Your task to perform on an android device: open app "Skype" (install if not already installed) Image 0: 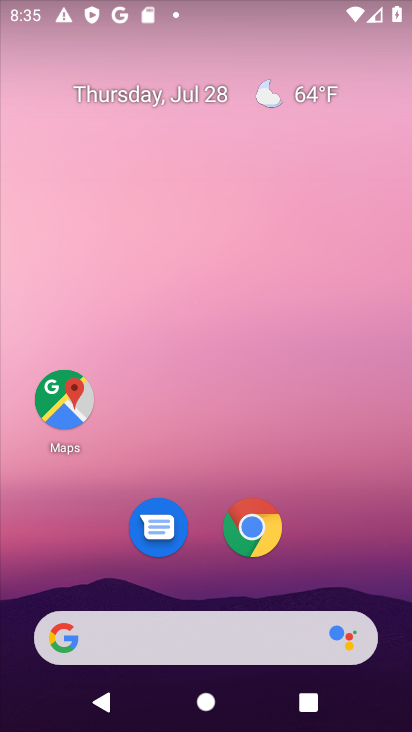
Step 0: click (218, 644)
Your task to perform on an android device: open app "Skype" (install if not already installed) Image 1: 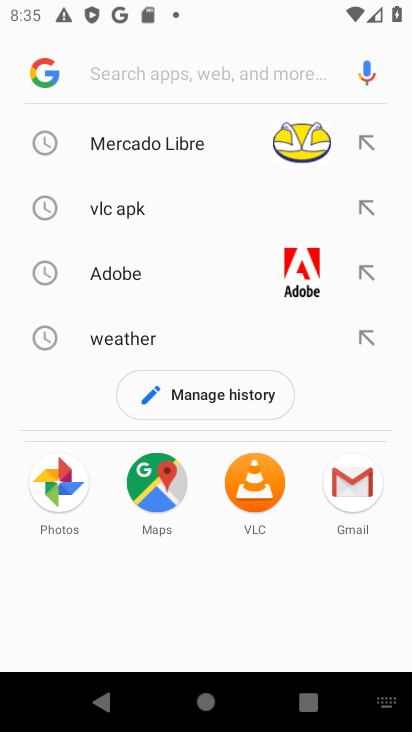
Step 1: type "skype"
Your task to perform on an android device: open app "Skype" (install if not already installed) Image 2: 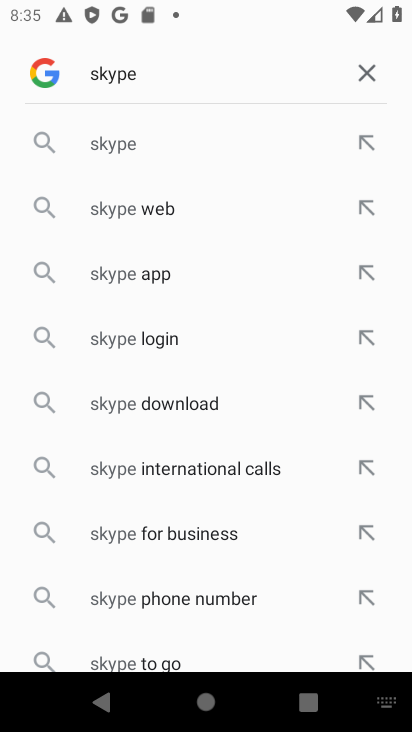
Step 2: click (360, 260)
Your task to perform on an android device: open app "Skype" (install if not already installed) Image 3: 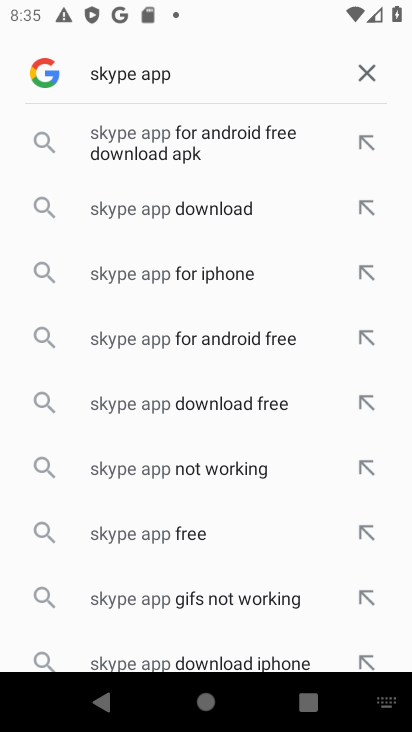
Step 3: click (366, 338)
Your task to perform on an android device: open app "Skype" (install if not already installed) Image 4: 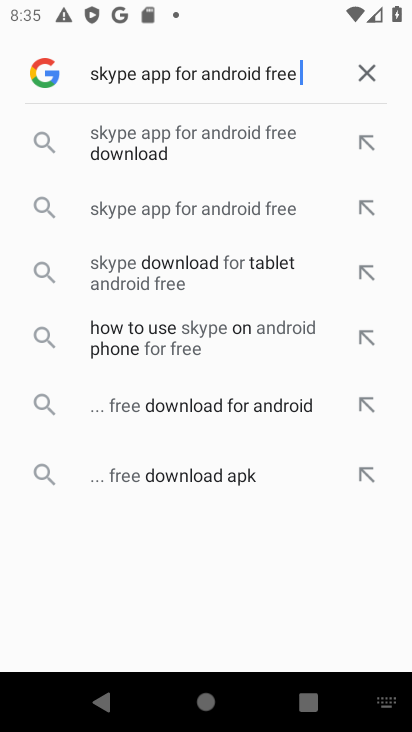
Step 4: click (256, 143)
Your task to perform on an android device: open app "Skype" (install if not already installed) Image 5: 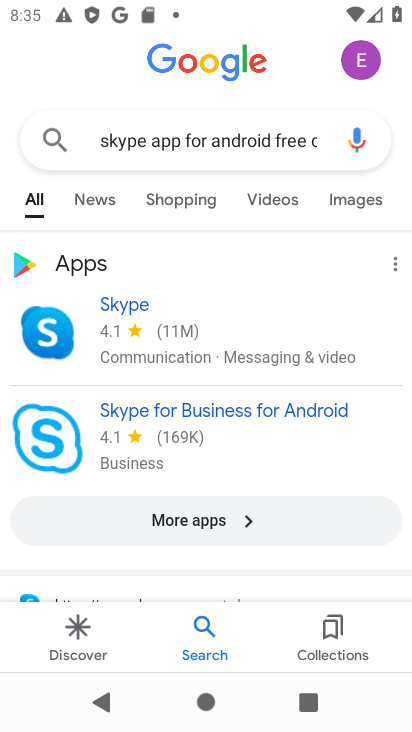
Step 5: click (157, 348)
Your task to perform on an android device: open app "Skype" (install if not already installed) Image 6: 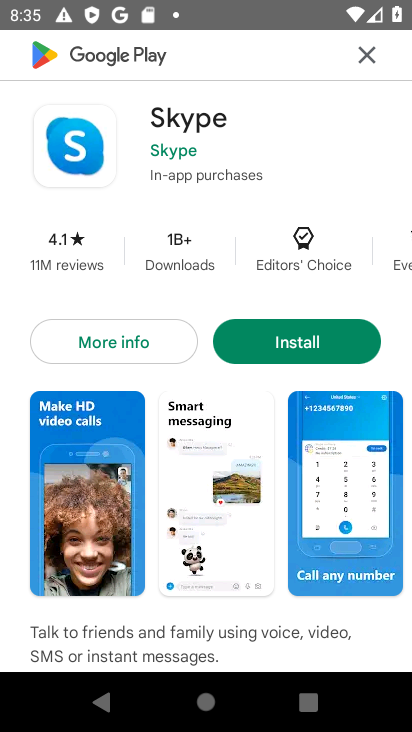
Step 6: click (319, 341)
Your task to perform on an android device: open app "Skype" (install if not already installed) Image 7: 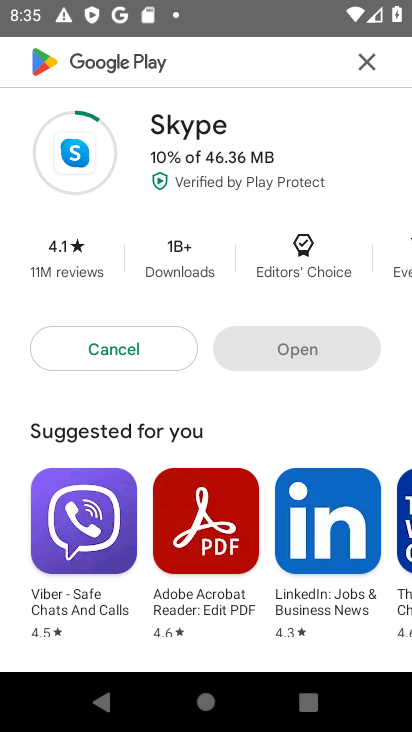
Step 7: task complete